Your task to perform on an android device: all mails in gmail Image 0: 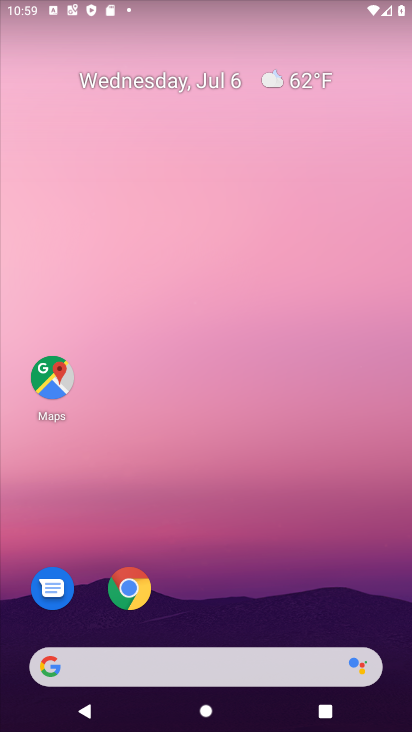
Step 0: drag from (320, 615) to (303, 54)
Your task to perform on an android device: all mails in gmail Image 1: 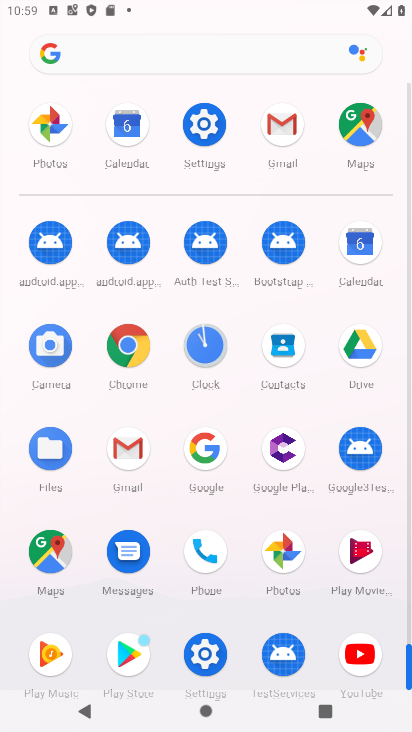
Step 1: click (124, 448)
Your task to perform on an android device: all mails in gmail Image 2: 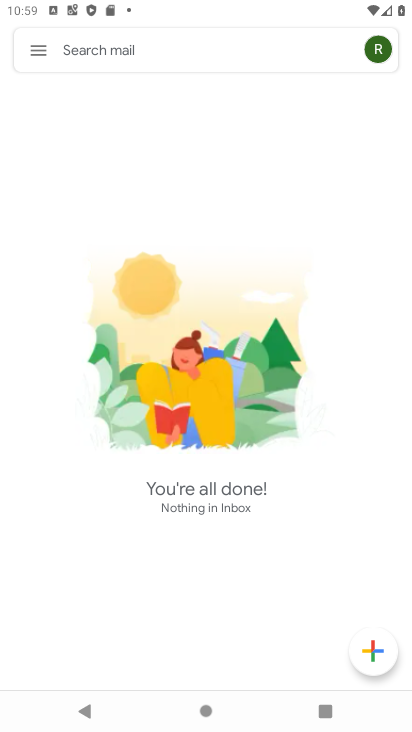
Step 2: click (32, 50)
Your task to perform on an android device: all mails in gmail Image 3: 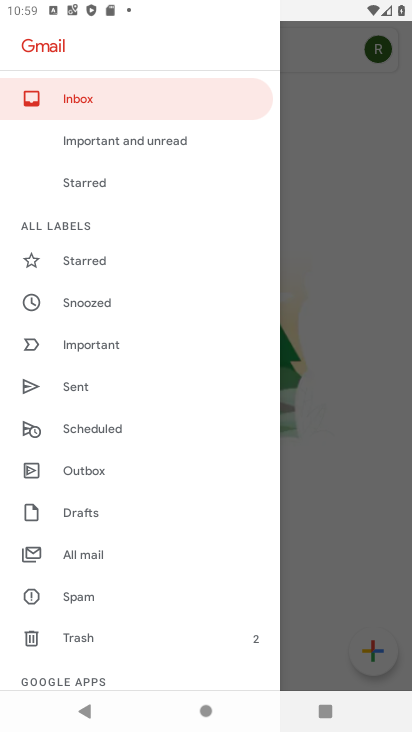
Step 3: click (80, 556)
Your task to perform on an android device: all mails in gmail Image 4: 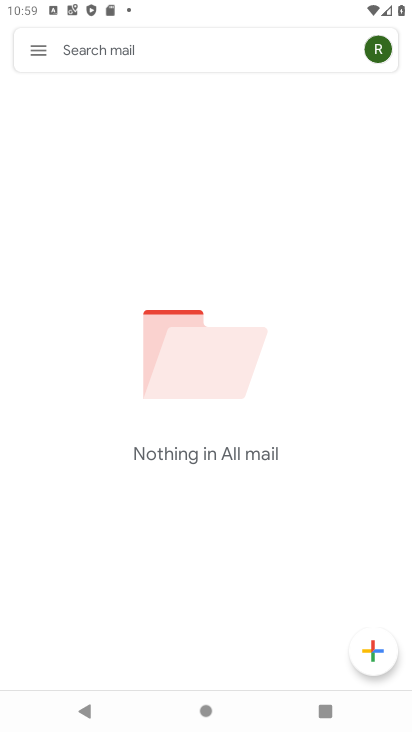
Step 4: task complete